Your task to perform on an android device: Open wifi settings Image 0: 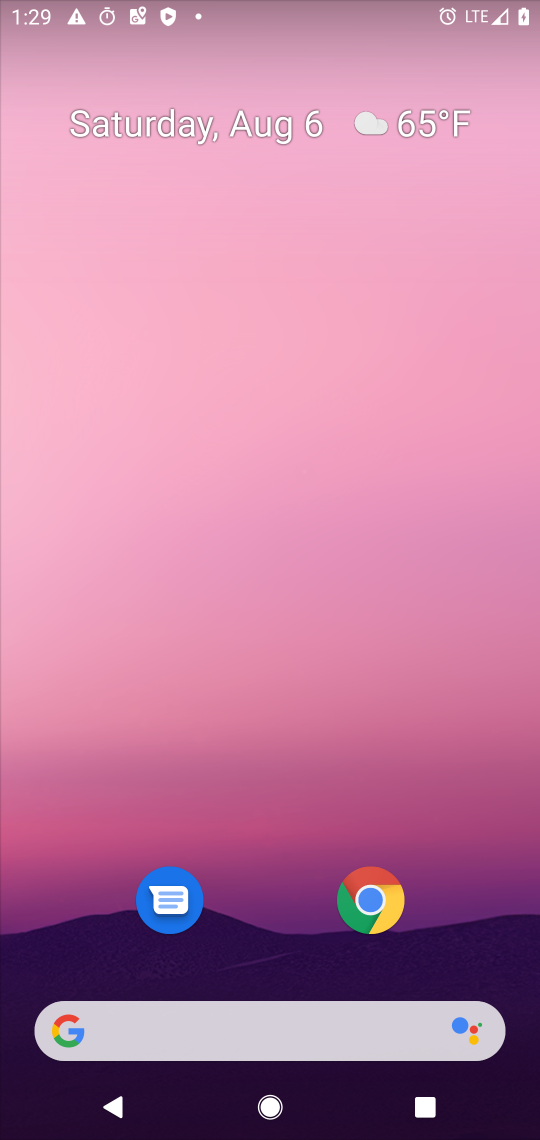
Step 0: drag from (263, 759) to (259, 200)
Your task to perform on an android device: Open wifi settings Image 1: 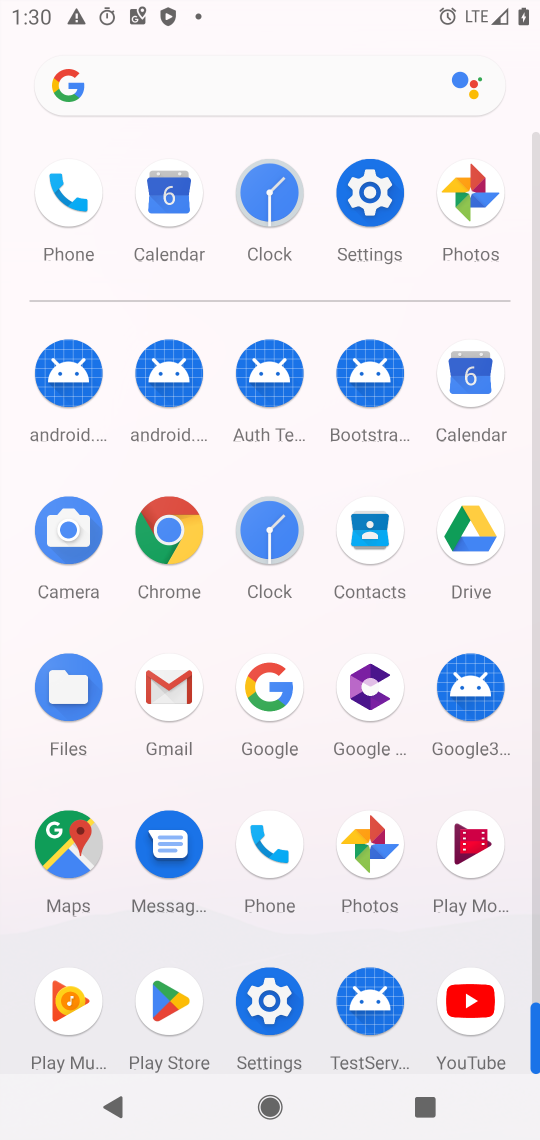
Step 1: click (372, 211)
Your task to perform on an android device: Open wifi settings Image 2: 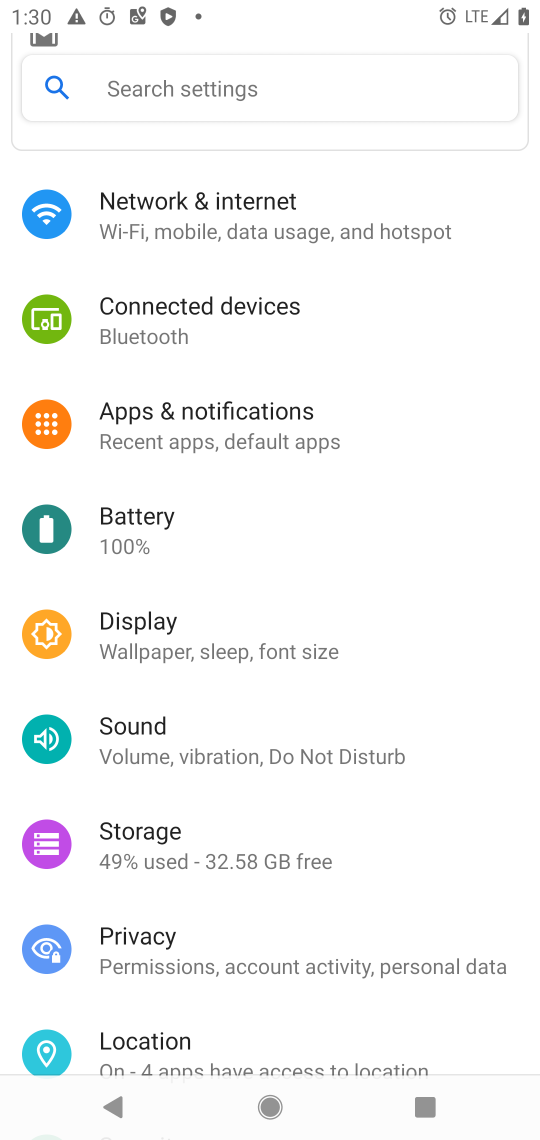
Step 2: click (168, 238)
Your task to perform on an android device: Open wifi settings Image 3: 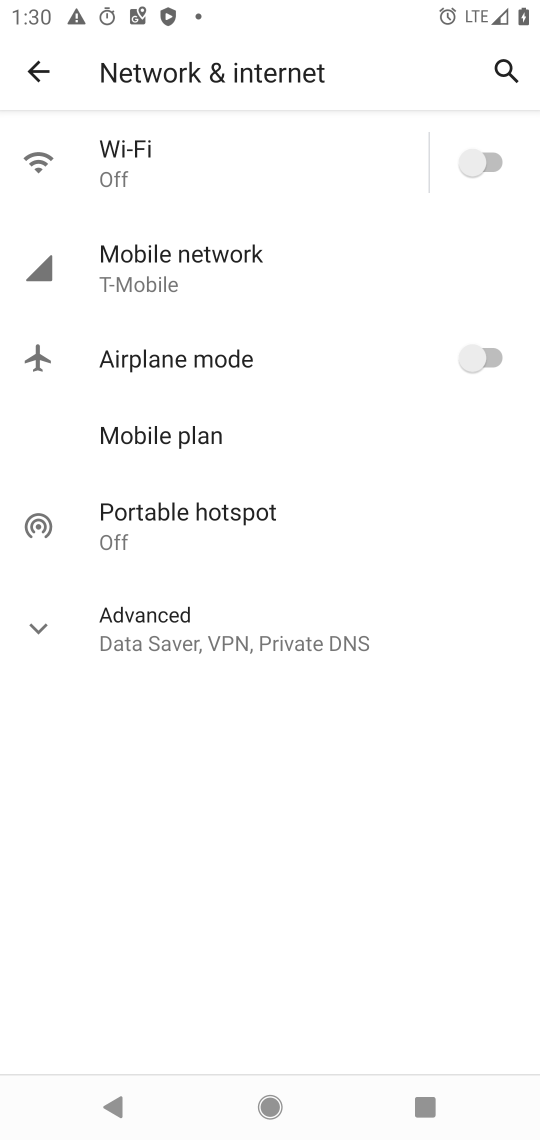
Step 3: click (122, 148)
Your task to perform on an android device: Open wifi settings Image 4: 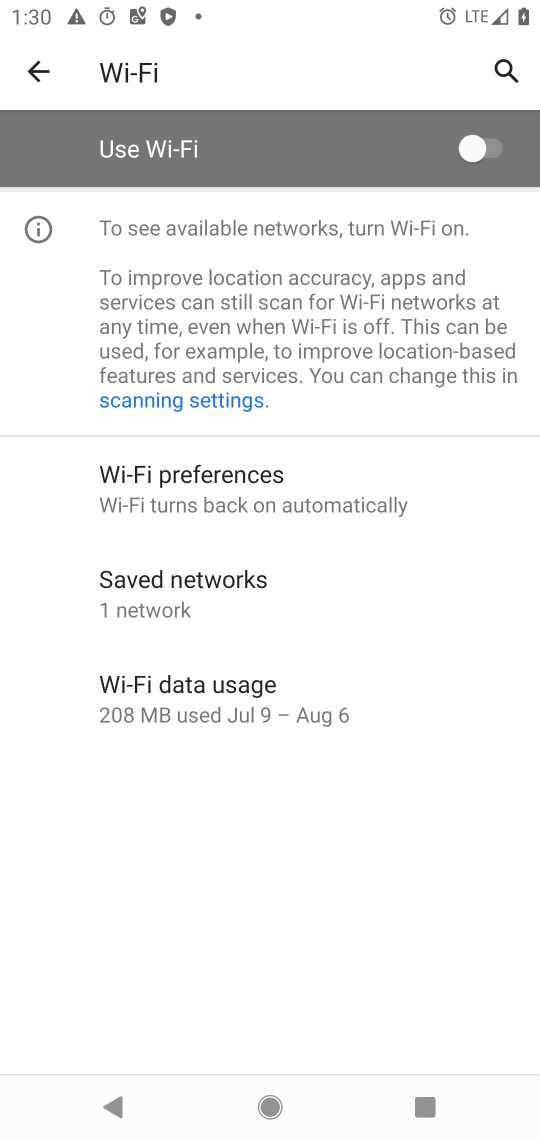
Step 4: task complete